Your task to perform on an android device: Open Google Image 0: 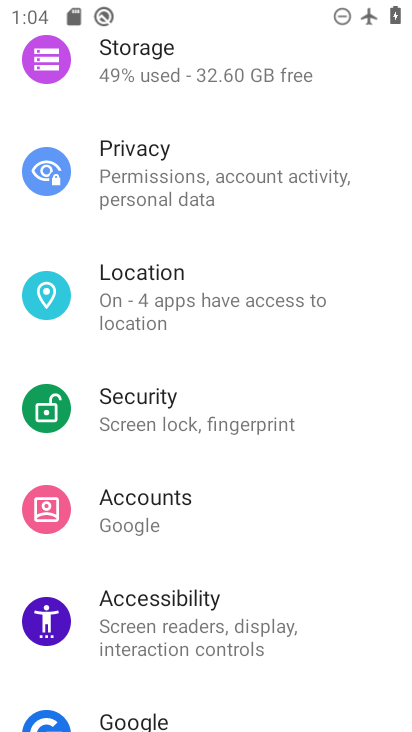
Step 0: press home button
Your task to perform on an android device: Open Google Image 1: 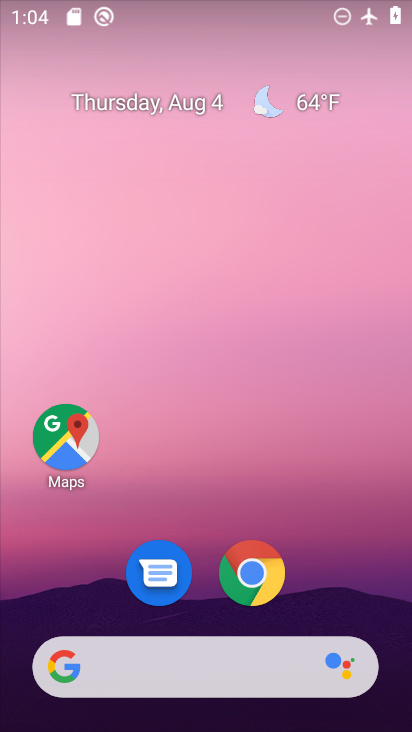
Step 1: drag from (345, 567) to (323, 202)
Your task to perform on an android device: Open Google Image 2: 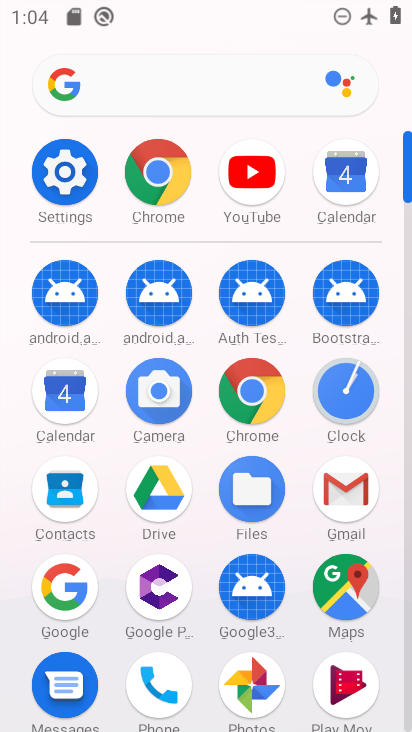
Step 2: click (64, 592)
Your task to perform on an android device: Open Google Image 3: 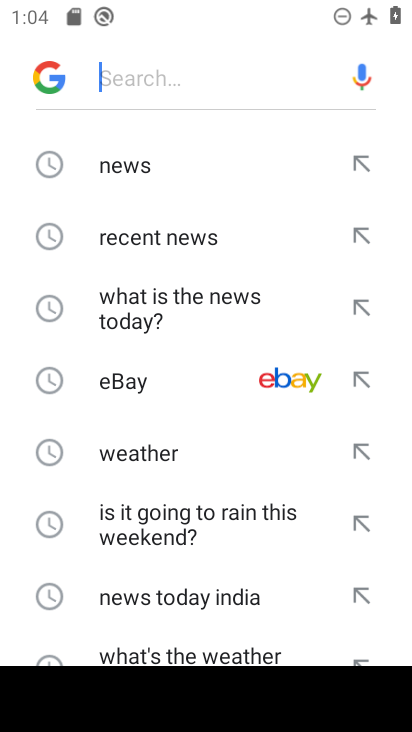
Step 3: task complete